Your task to perform on an android device: turn off wifi Image 0: 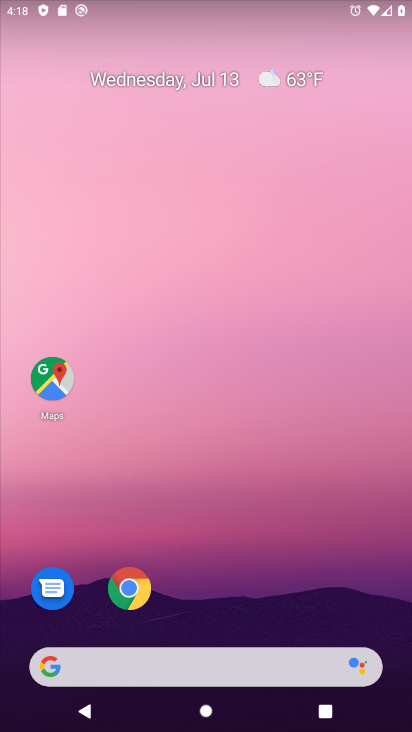
Step 0: drag from (210, 665) to (284, 307)
Your task to perform on an android device: turn off wifi Image 1: 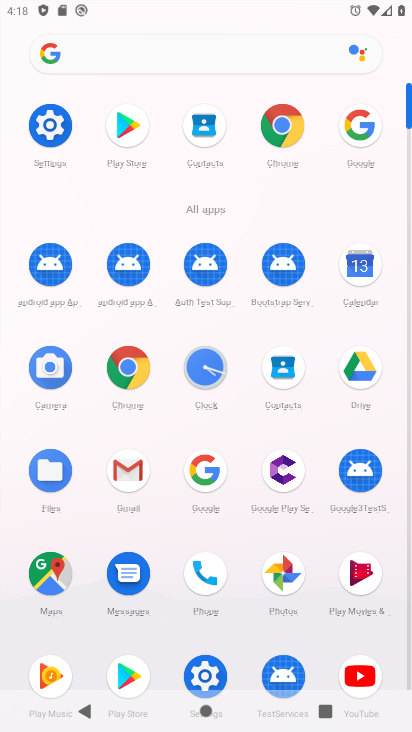
Step 1: click (49, 126)
Your task to perform on an android device: turn off wifi Image 2: 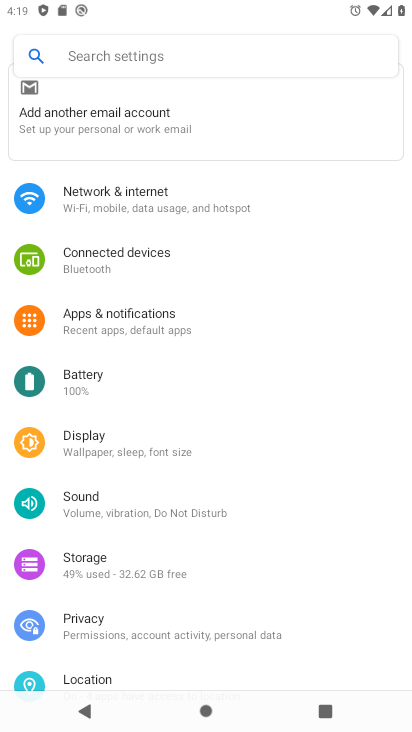
Step 2: click (122, 211)
Your task to perform on an android device: turn off wifi Image 3: 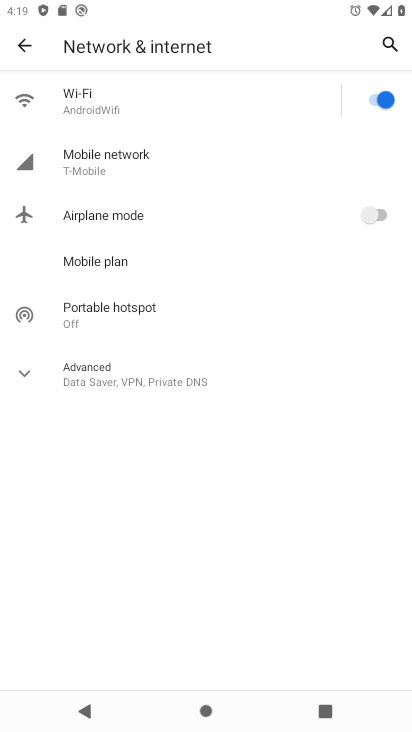
Step 3: click (372, 104)
Your task to perform on an android device: turn off wifi Image 4: 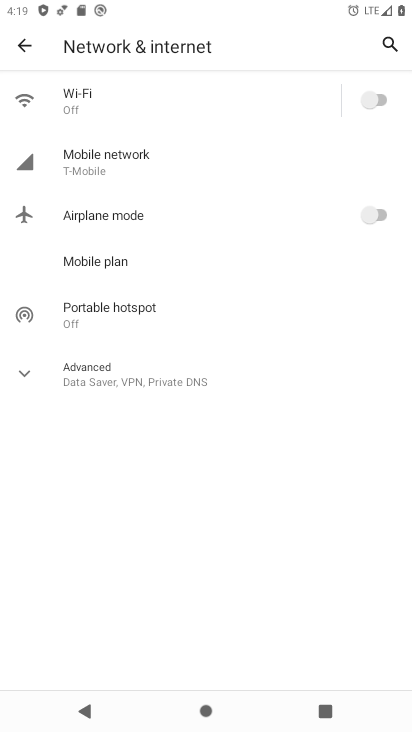
Step 4: task complete